Your task to perform on an android device: Show me the alarms in the clock app Image 0: 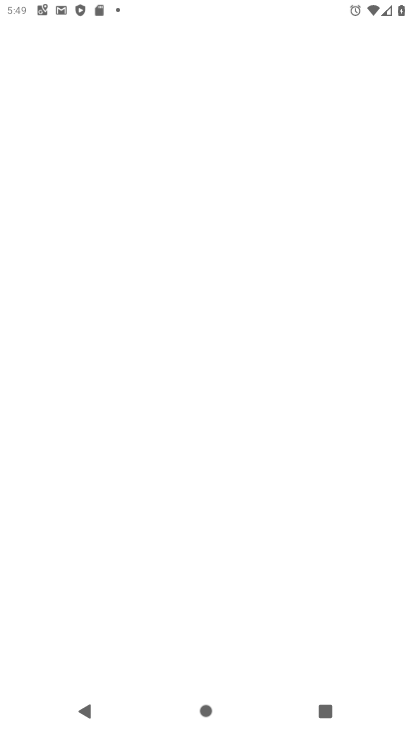
Step 0: press home button
Your task to perform on an android device: Show me the alarms in the clock app Image 1: 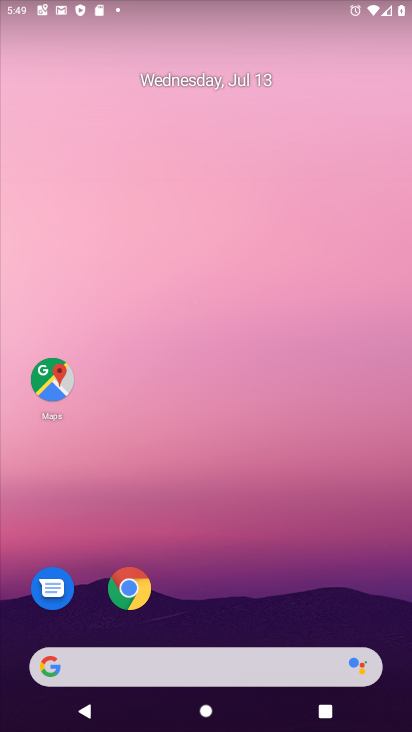
Step 1: drag from (173, 557) to (177, 61)
Your task to perform on an android device: Show me the alarms in the clock app Image 2: 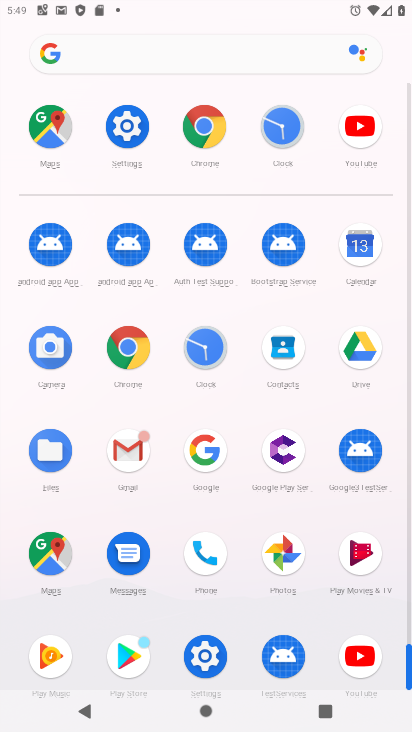
Step 2: click (216, 364)
Your task to perform on an android device: Show me the alarms in the clock app Image 3: 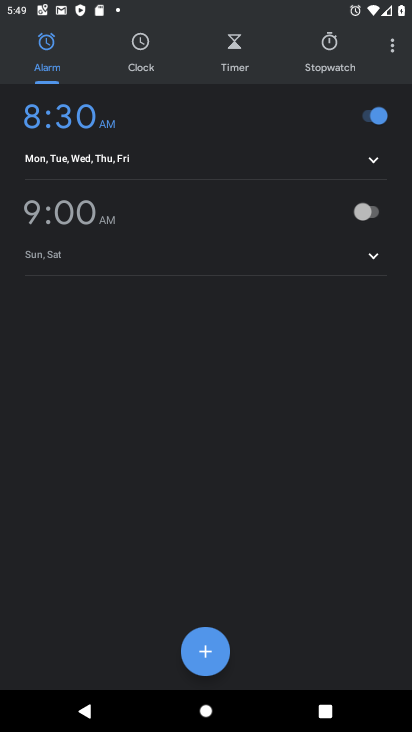
Step 3: task complete